Your task to perform on an android device: Search for seafood restaurants on Google Maps Image 0: 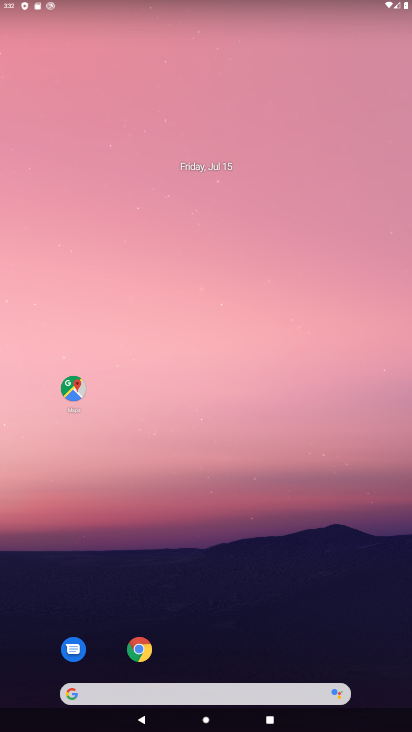
Step 0: drag from (185, 653) to (273, 137)
Your task to perform on an android device: Search for seafood restaurants on Google Maps Image 1: 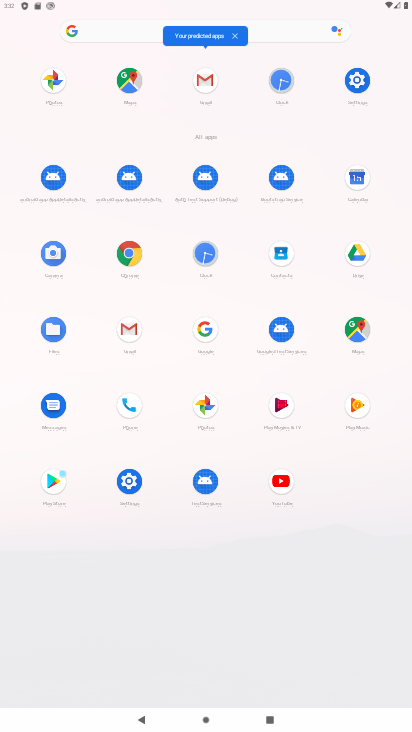
Step 1: click (352, 315)
Your task to perform on an android device: Search for seafood restaurants on Google Maps Image 2: 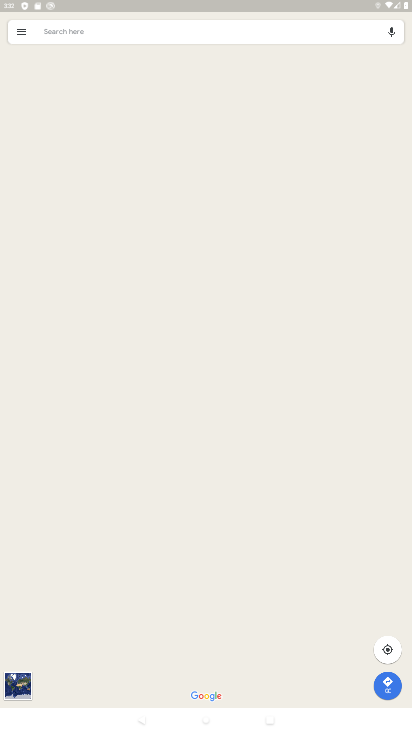
Step 2: click (87, 40)
Your task to perform on an android device: Search for seafood restaurants on Google Maps Image 3: 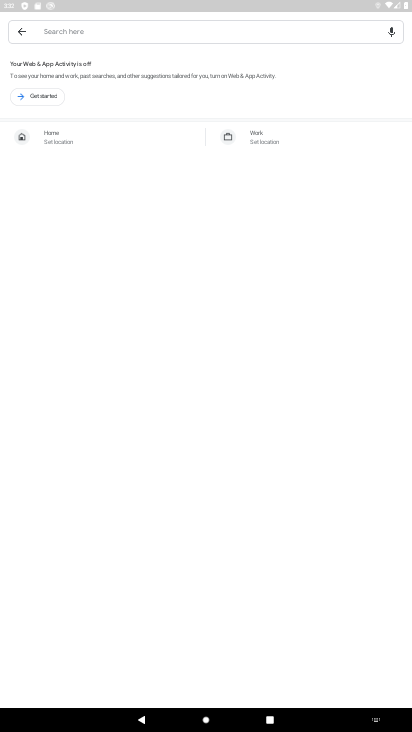
Step 3: type "seafood restaurants"
Your task to perform on an android device: Search for seafood restaurants on Google Maps Image 4: 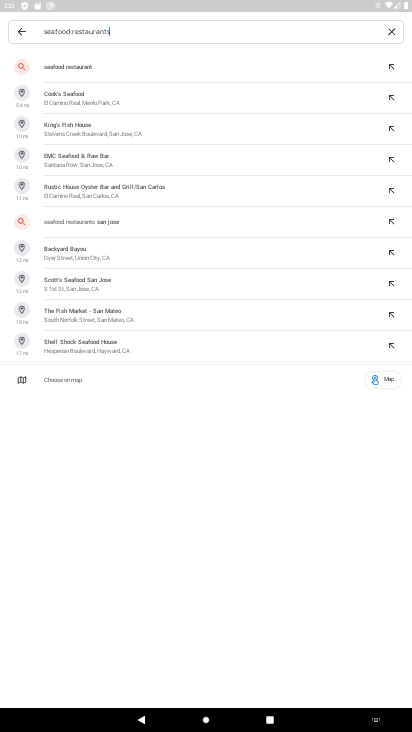
Step 4: click (155, 75)
Your task to perform on an android device: Search for seafood restaurants on Google Maps Image 5: 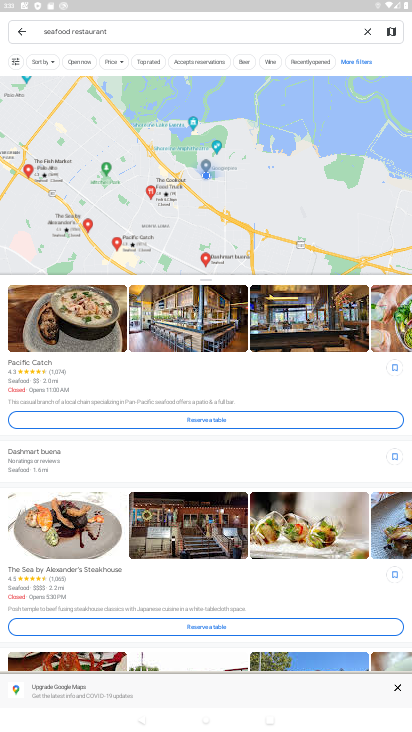
Step 5: task complete